Your task to perform on an android device: Open Chrome and go to the settings page Image 0: 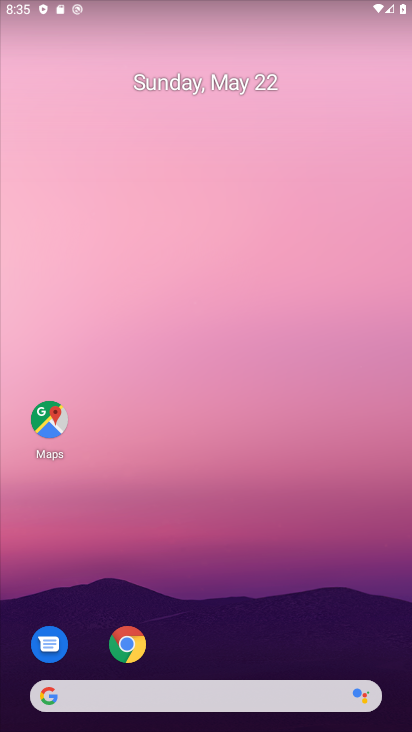
Step 0: click (129, 650)
Your task to perform on an android device: Open Chrome and go to the settings page Image 1: 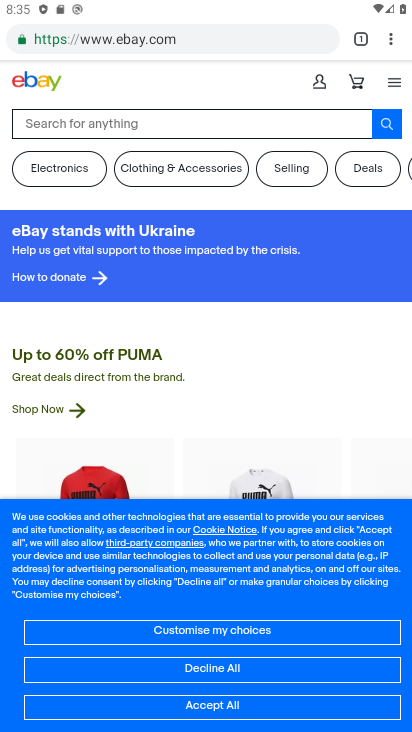
Step 1: task complete